Your task to perform on an android device: Clear all items from cart on costco.com. Search for logitech g pro on costco.com, select the first entry, add it to the cart, then select checkout. Image 0: 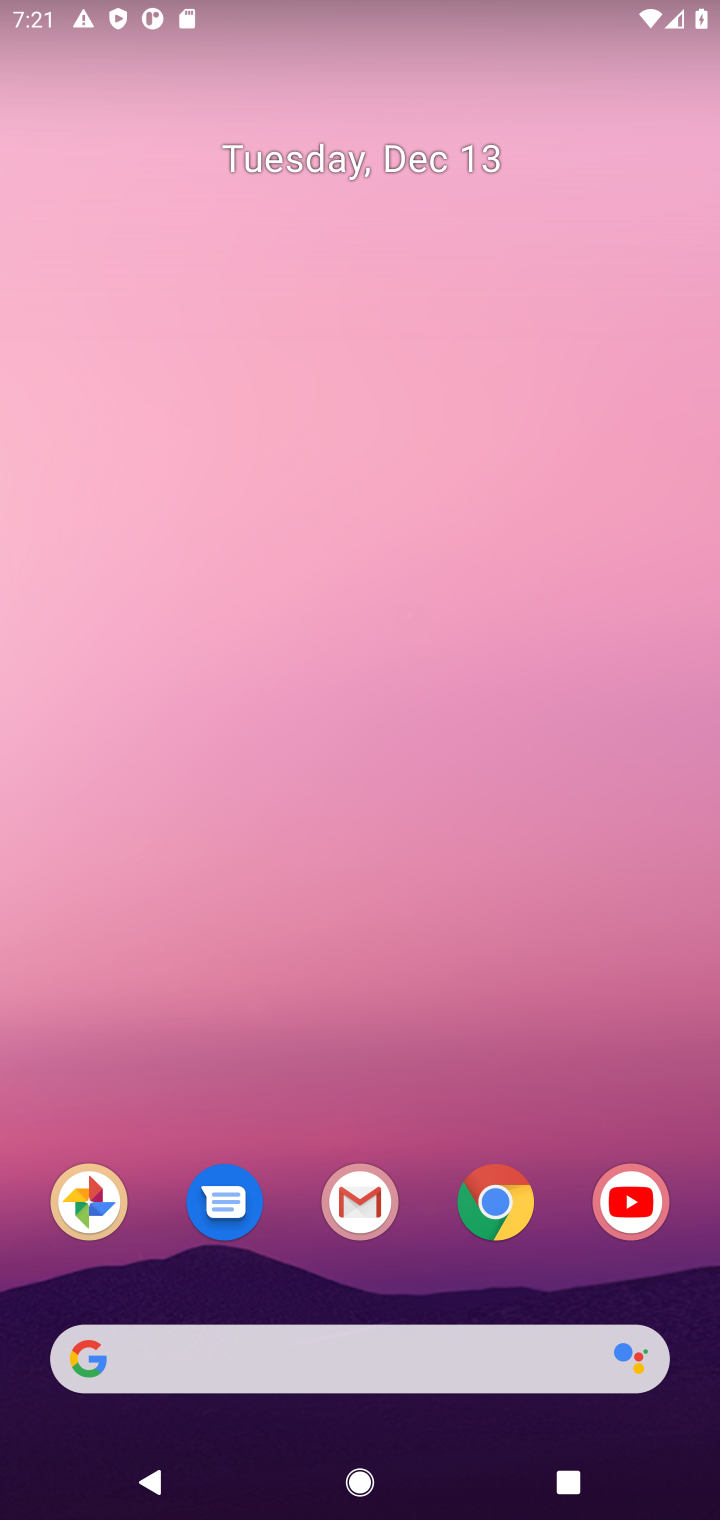
Step 0: click (494, 1218)
Your task to perform on an android device: Clear all items from cart on costco.com. Search for logitech g pro on costco.com, select the first entry, add it to the cart, then select checkout. Image 1: 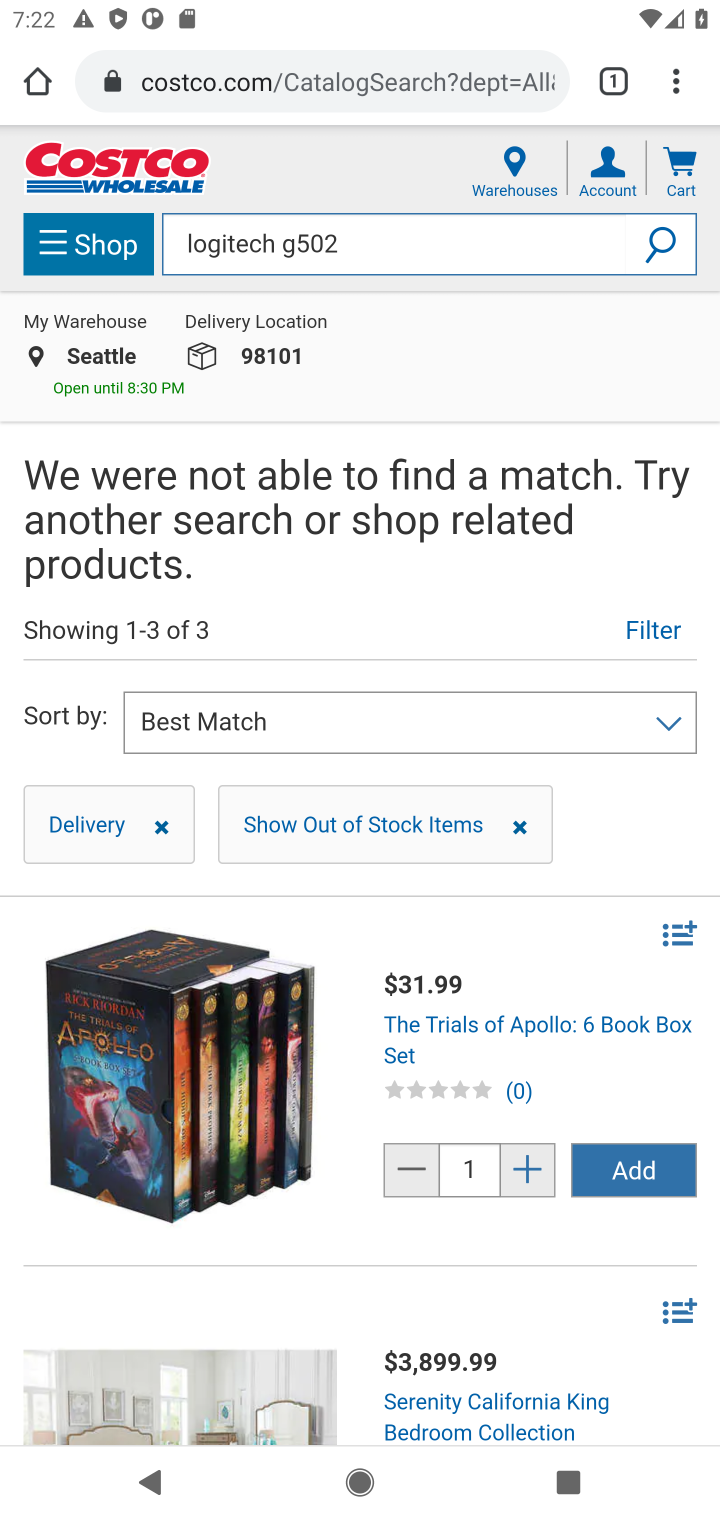
Step 1: click (676, 162)
Your task to perform on an android device: Clear all items from cart on costco.com. Search for logitech g pro on costco.com, select the first entry, add it to the cart, then select checkout. Image 2: 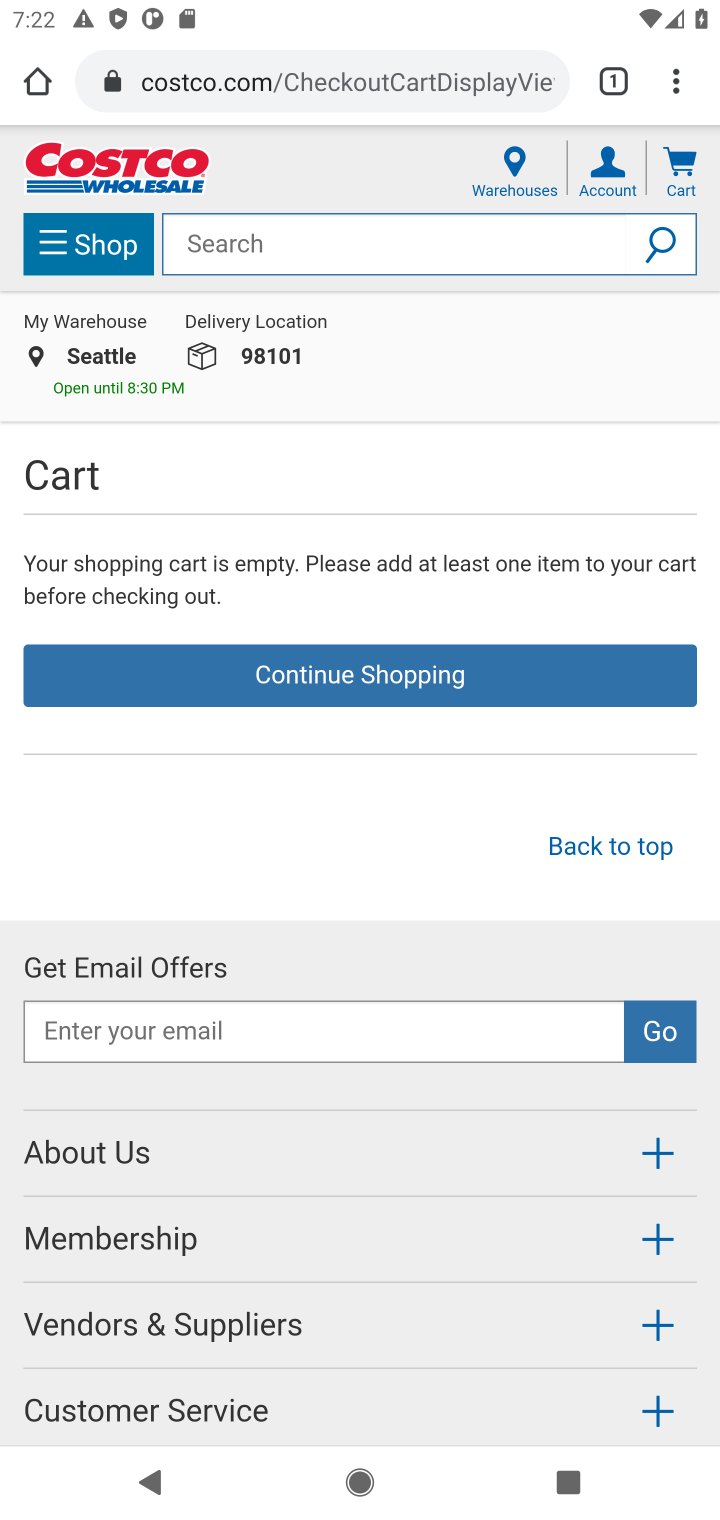
Step 2: click (337, 238)
Your task to perform on an android device: Clear all items from cart on costco.com. Search for logitech g pro on costco.com, select the first entry, add it to the cart, then select checkout. Image 3: 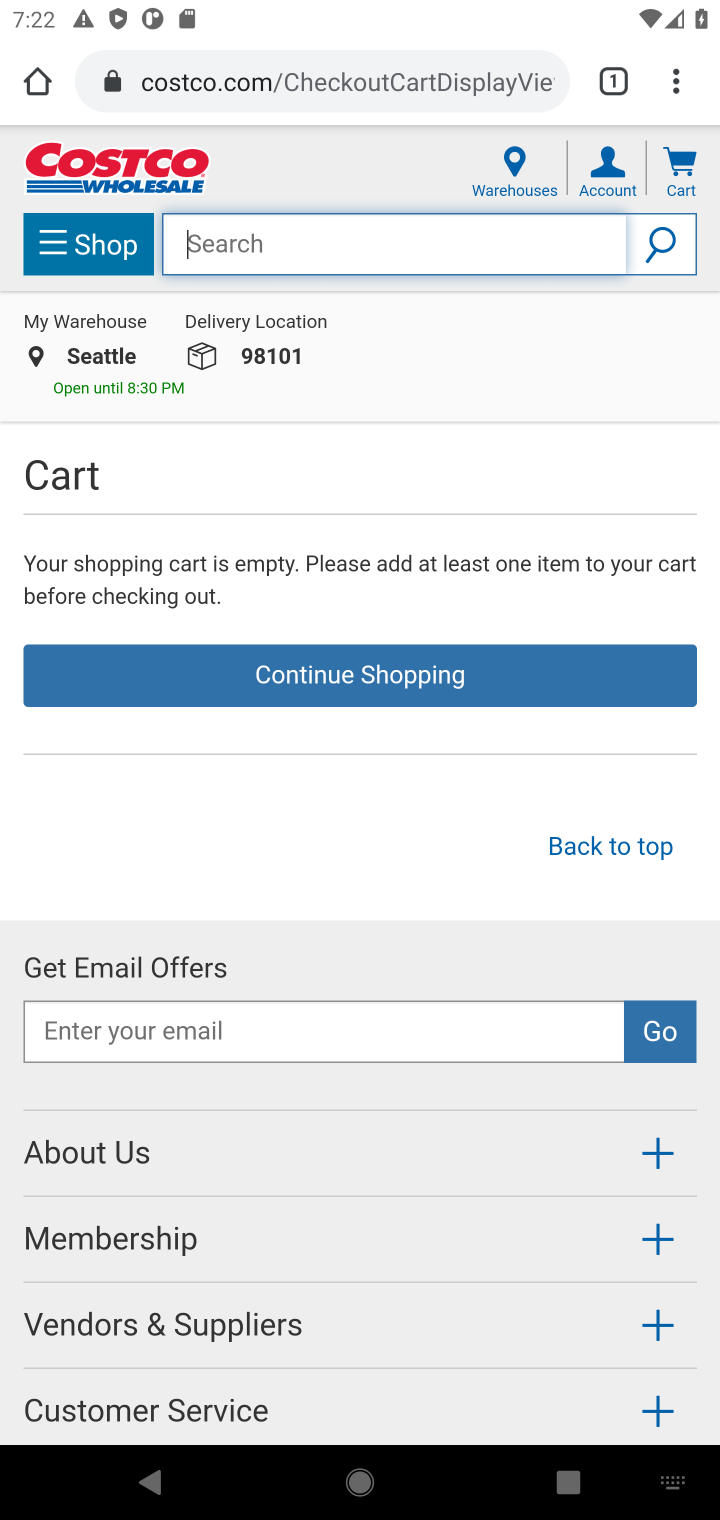
Step 3: type "logitech g pro"
Your task to perform on an android device: Clear all items from cart on costco.com. Search for logitech g pro on costco.com, select the first entry, add it to the cart, then select checkout. Image 4: 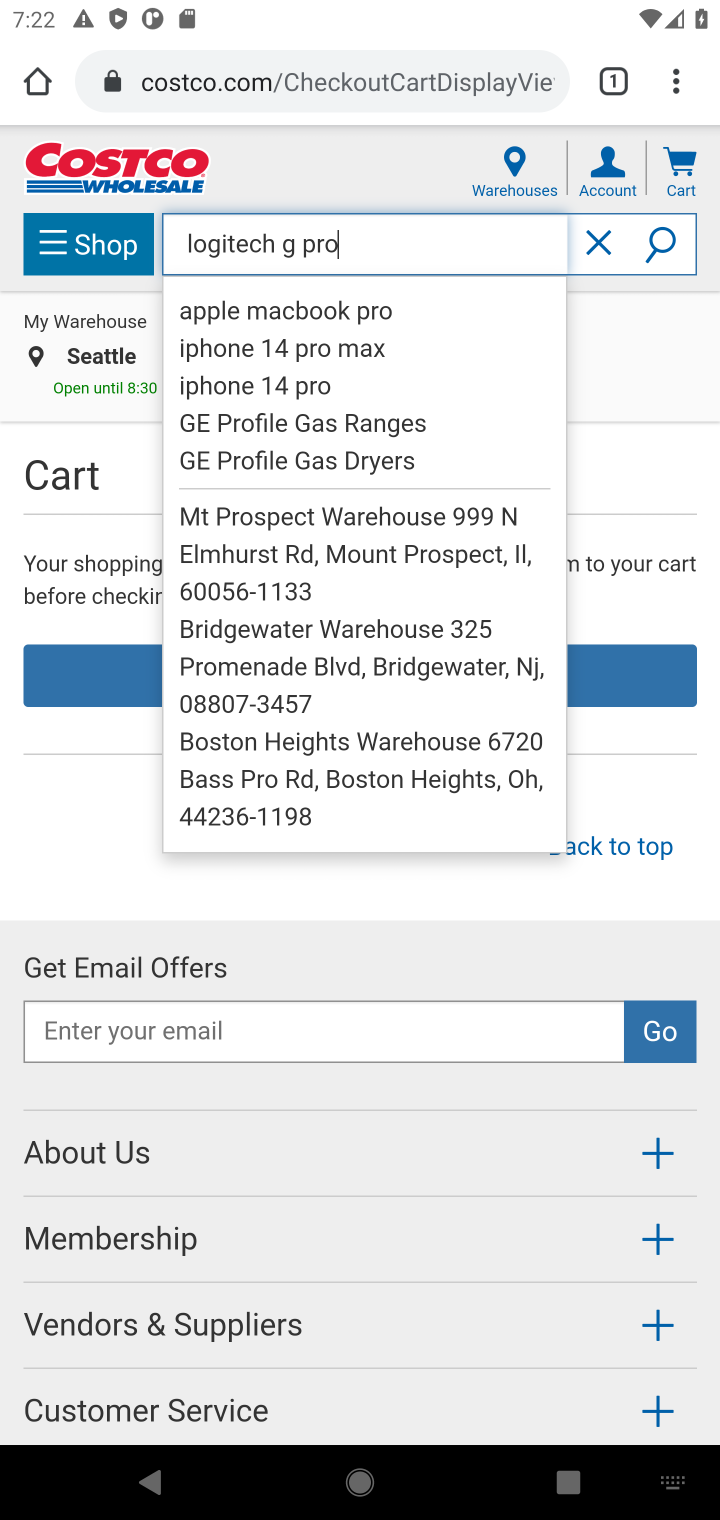
Step 4: click (679, 246)
Your task to perform on an android device: Clear all items from cart on costco.com. Search for logitech g pro on costco.com, select the first entry, add it to the cart, then select checkout. Image 5: 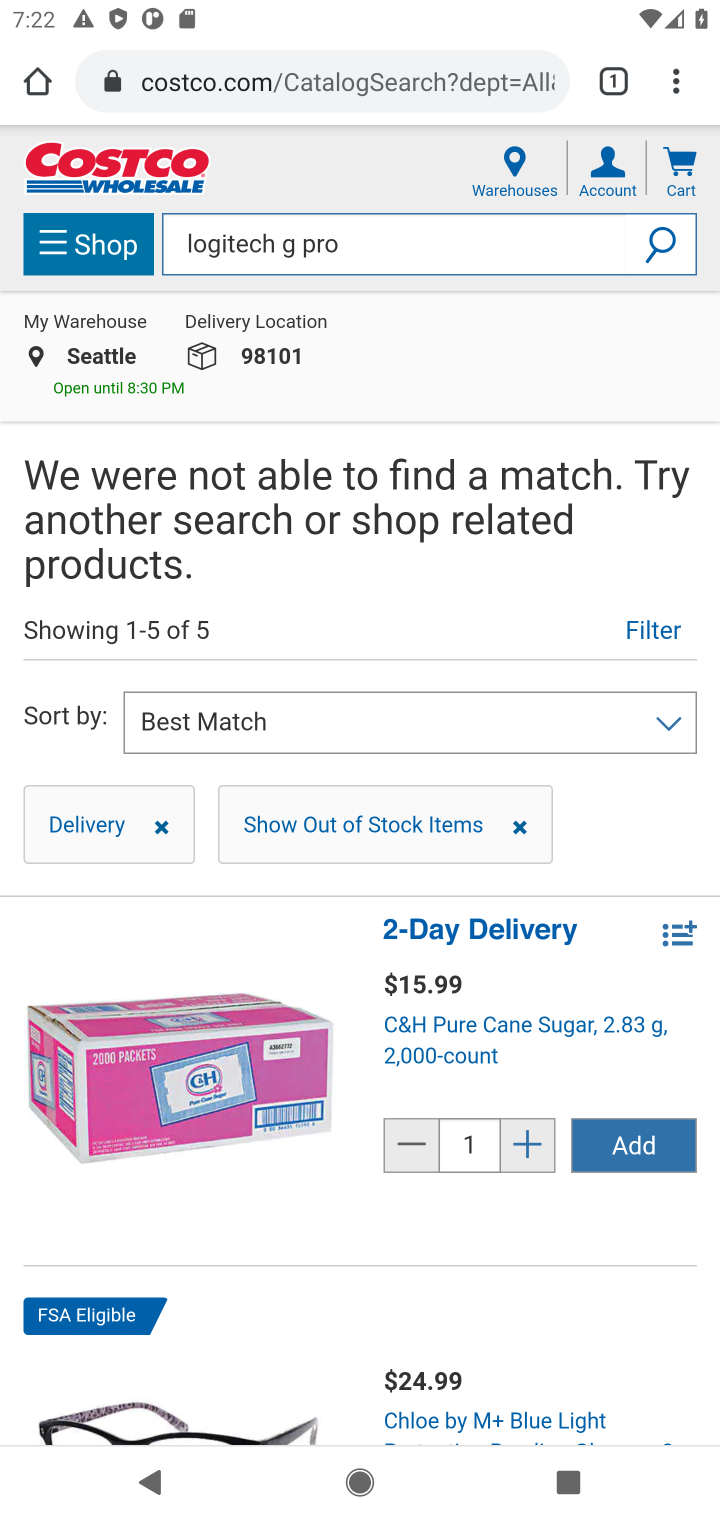
Step 5: task complete